Your task to perform on an android device: change notifications settings Image 0: 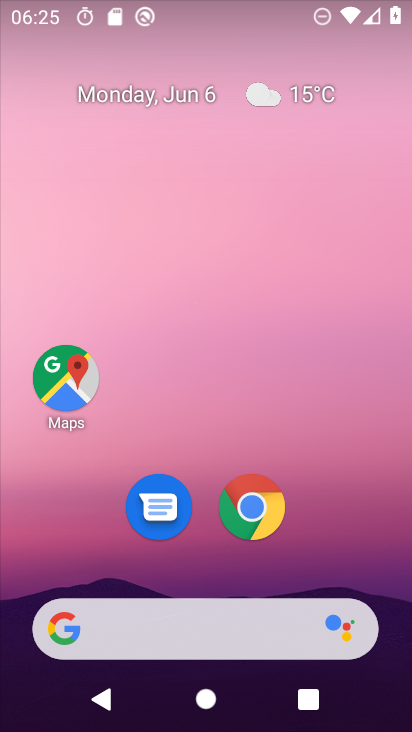
Step 0: drag from (207, 581) to (221, 12)
Your task to perform on an android device: change notifications settings Image 1: 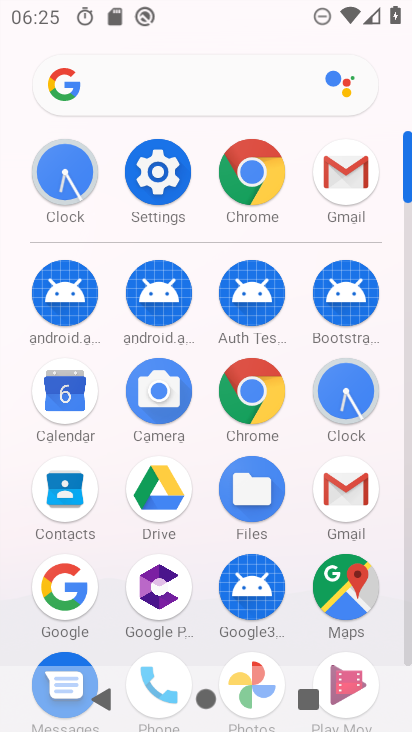
Step 1: click (152, 181)
Your task to perform on an android device: change notifications settings Image 2: 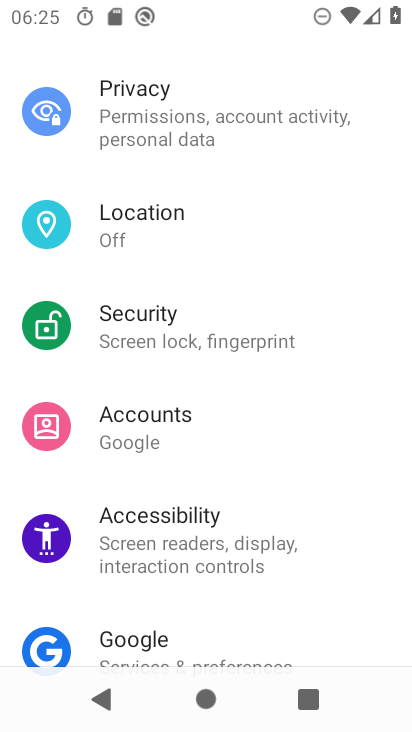
Step 2: drag from (159, 569) to (167, 153)
Your task to perform on an android device: change notifications settings Image 3: 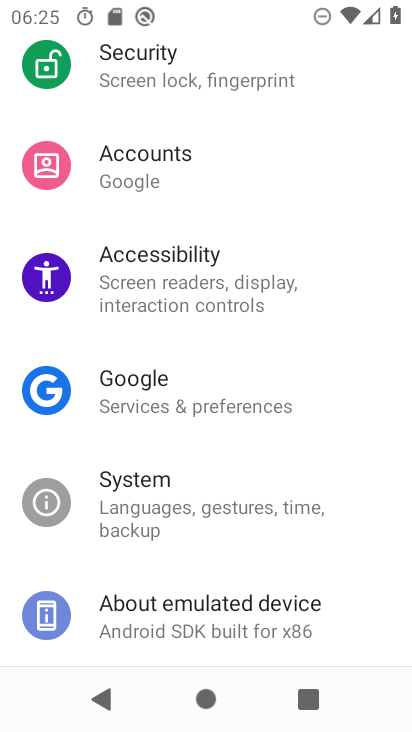
Step 3: drag from (163, 277) to (179, 719)
Your task to perform on an android device: change notifications settings Image 4: 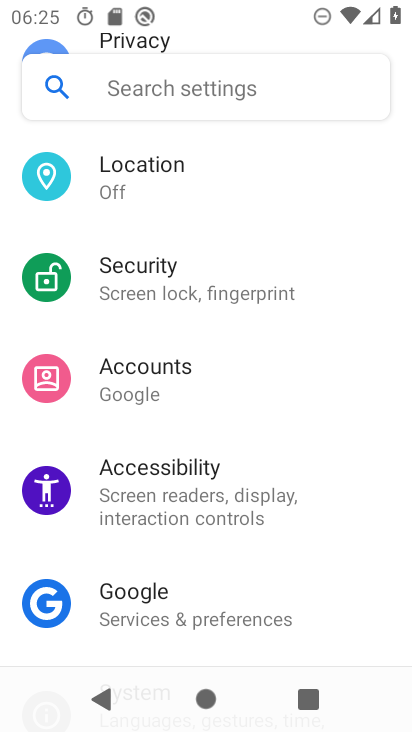
Step 4: drag from (262, 402) to (207, 728)
Your task to perform on an android device: change notifications settings Image 5: 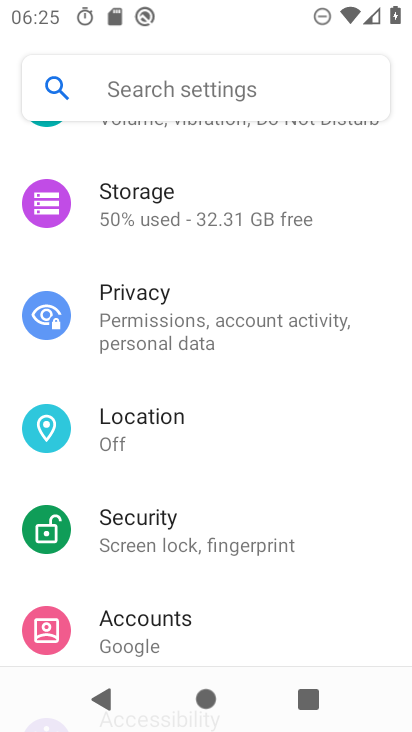
Step 5: drag from (232, 447) to (257, 720)
Your task to perform on an android device: change notifications settings Image 6: 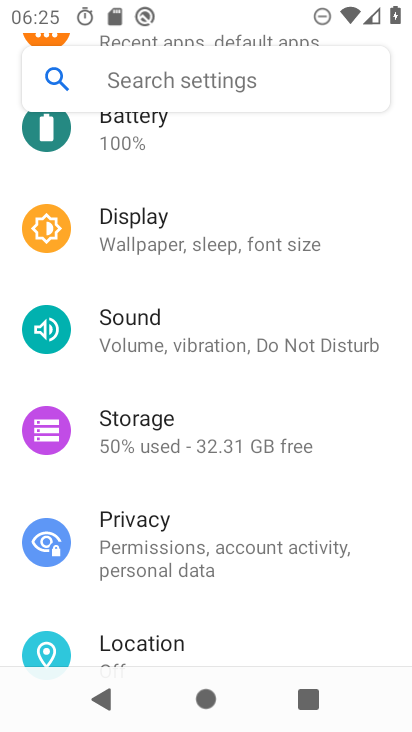
Step 6: drag from (249, 513) to (221, 716)
Your task to perform on an android device: change notifications settings Image 7: 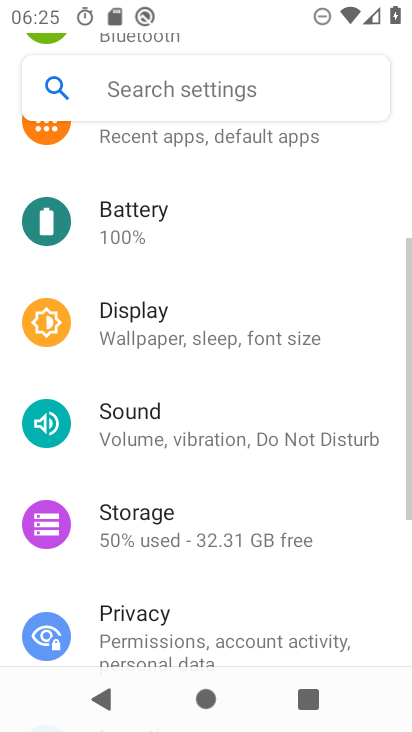
Step 7: drag from (154, 299) to (164, 719)
Your task to perform on an android device: change notifications settings Image 8: 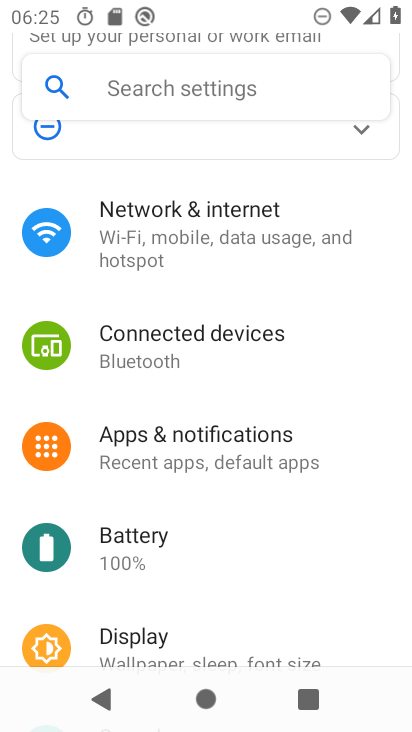
Step 8: click (136, 455)
Your task to perform on an android device: change notifications settings Image 9: 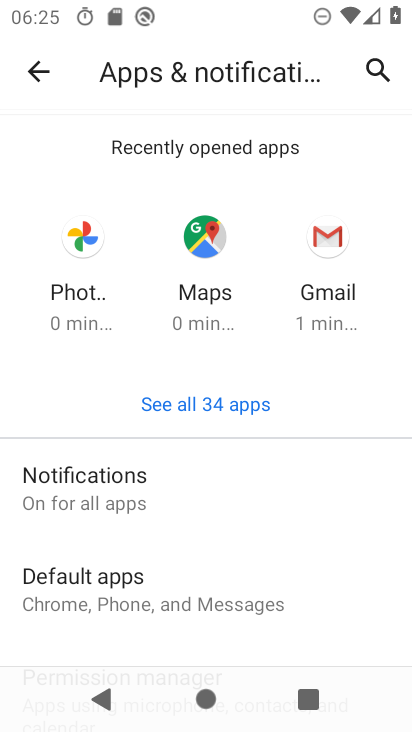
Step 9: click (109, 501)
Your task to perform on an android device: change notifications settings Image 10: 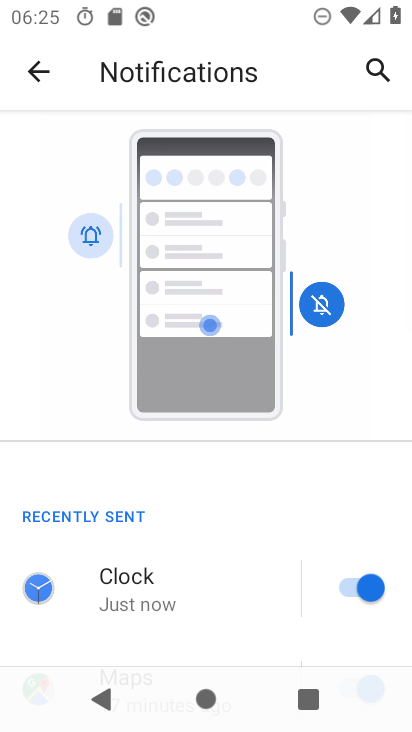
Step 10: drag from (163, 589) to (182, 157)
Your task to perform on an android device: change notifications settings Image 11: 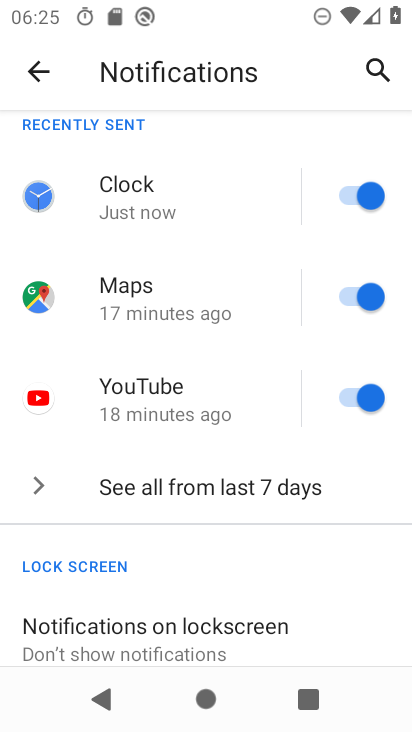
Step 11: drag from (180, 615) to (188, 342)
Your task to perform on an android device: change notifications settings Image 12: 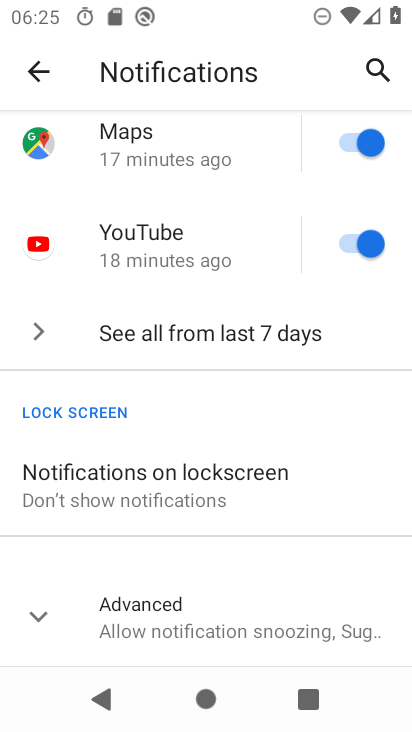
Step 12: click (134, 490)
Your task to perform on an android device: change notifications settings Image 13: 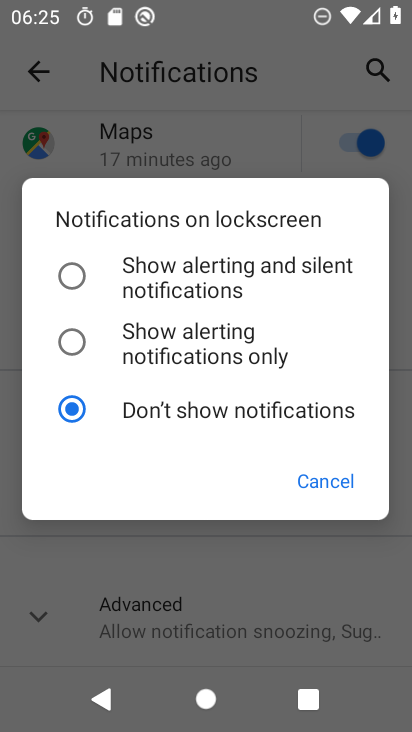
Step 13: click (78, 282)
Your task to perform on an android device: change notifications settings Image 14: 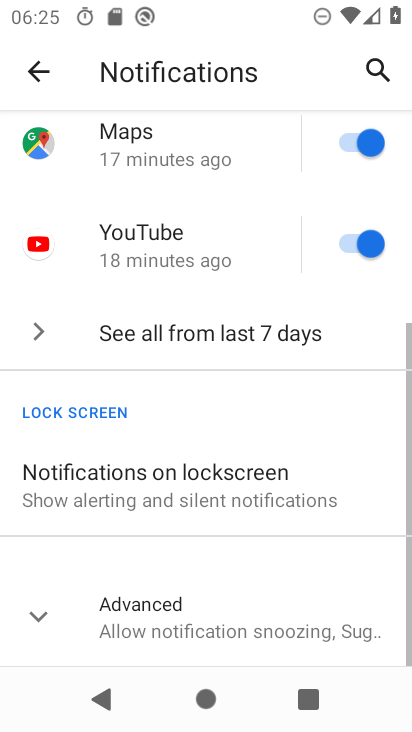
Step 14: task complete